Your task to perform on an android device: find snoozed emails in the gmail app Image 0: 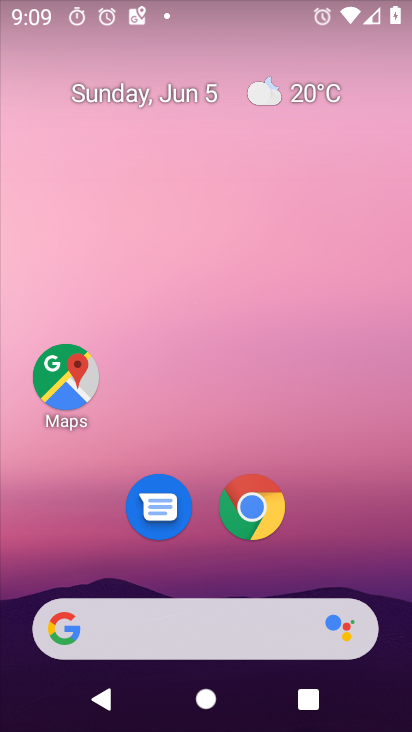
Step 0: drag from (328, 540) to (236, 51)
Your task to perform on an android device: find snoozed emails in the gmail app Image 1: 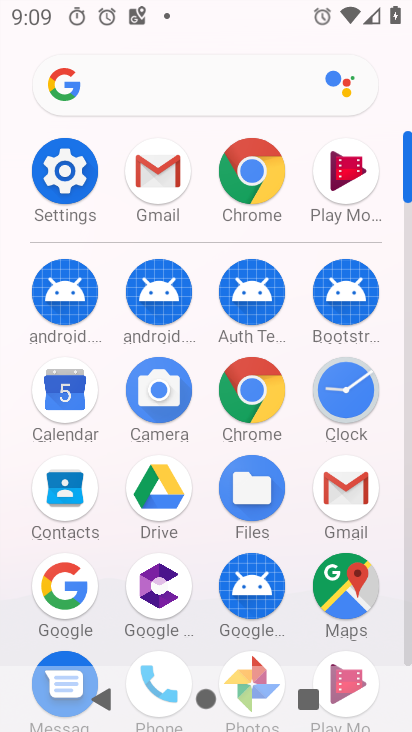
Step 1: click (344, 484)
Your task to perform on an android device: find snoozed emails in the gmail app Image 2: 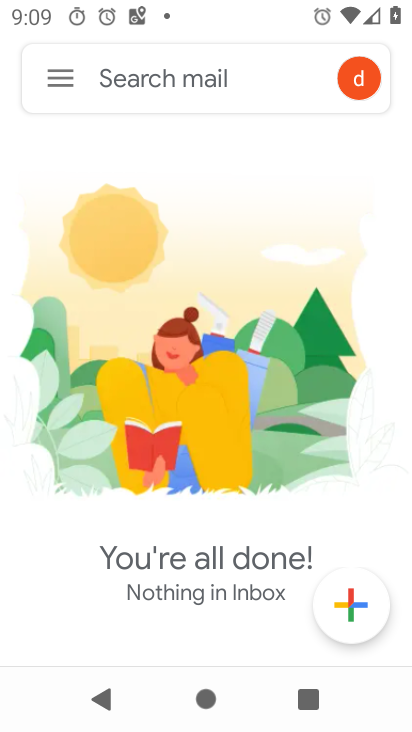
Step 2: click (63, 79)
Your task to perform on an android device: find snoozed emails in the gmail app Image 3: 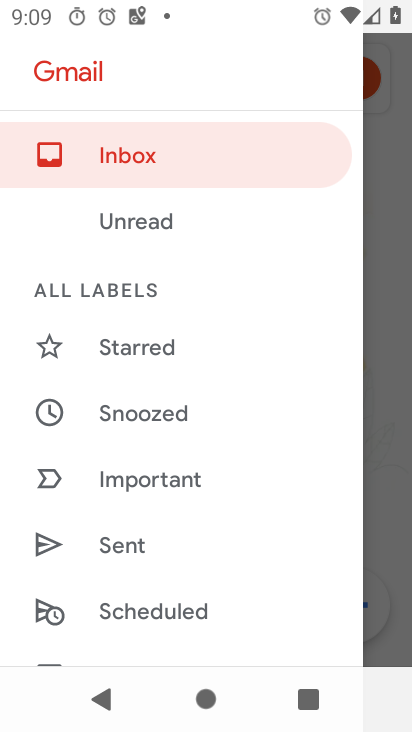
Step 3: click (168, 407)
Your task to perform on an android device: find snoozed emails in the gmail app Image 4: 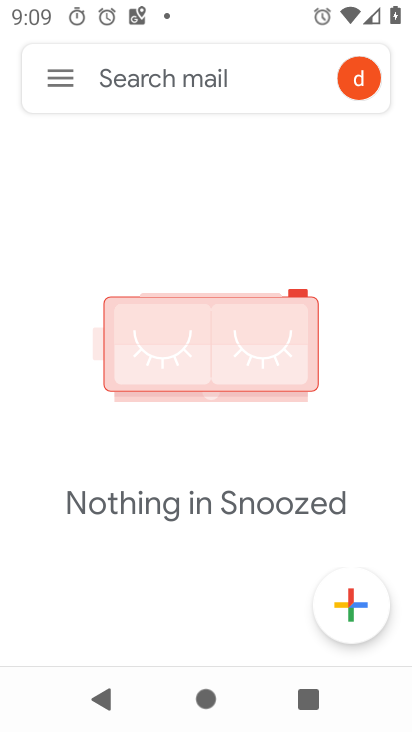
Step 4: task complete